Your task to perform on an android device: Go to calendar. Show me events next week Image 0: 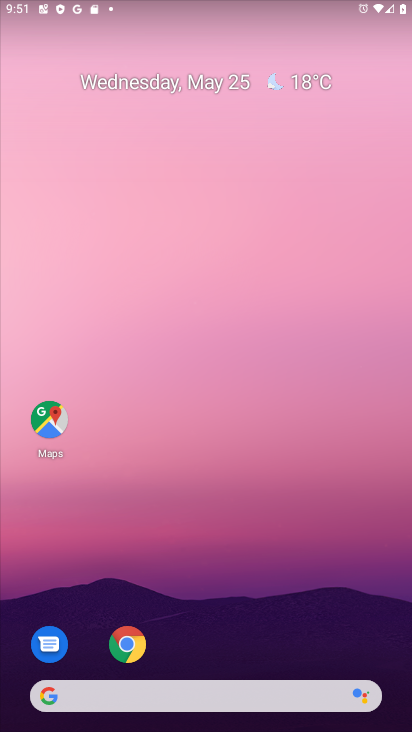
Step 0: drag from (189, 661) to (195, 2)
Your task to perform on an android device: Go to calendar. Show me events next week Image 1: 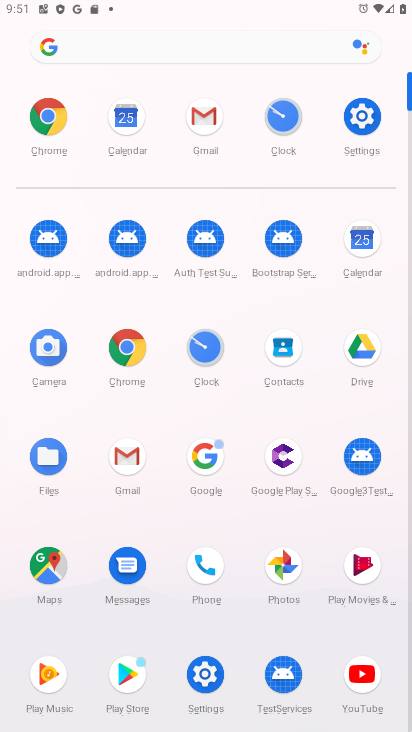
Step 1: click (360, 235)
Your task to perform on an android device: Go to calendar. Show me events next week Image 2: 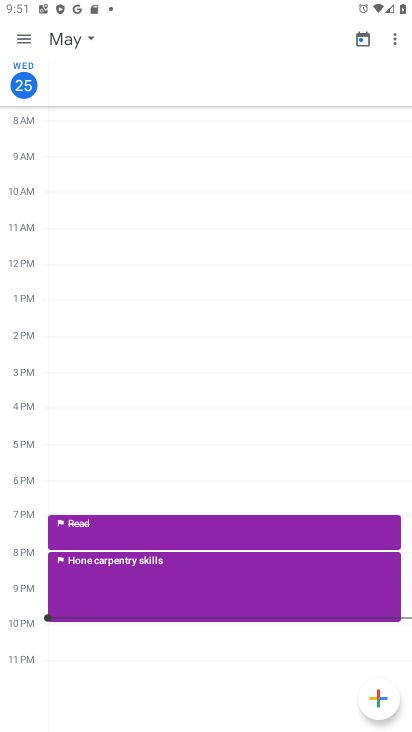
Step 2: click (19, 35)
Your task to perform on an android device: Go to calendar. Show me events next week Image 3: 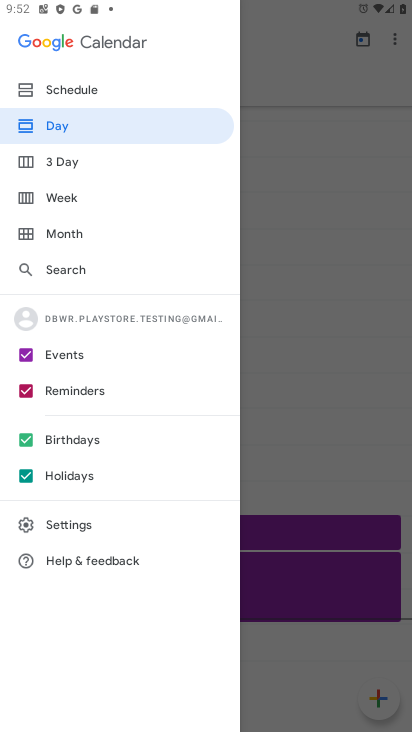
Step 3: click (25, 472)
Your task to perform on an android device: Go to calendar. Show me events next week Image 4: 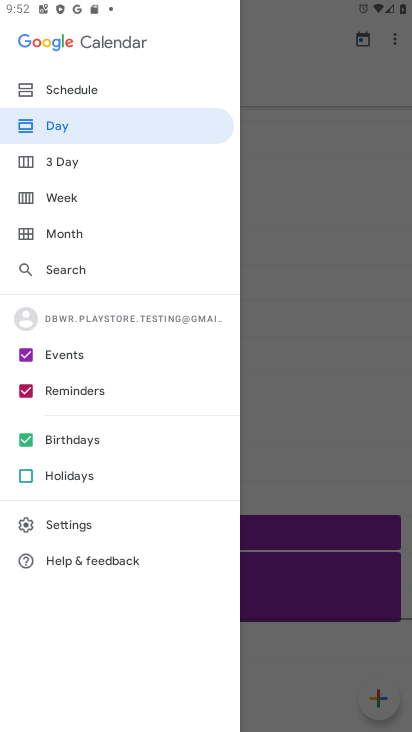
Step 4: click (25, 433)
Your task to perform on an android device: Go to calendar. Show me events next week Image 5: 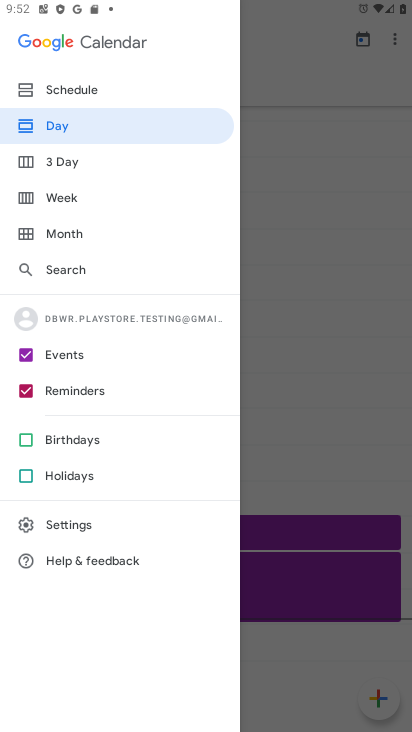
Step 5: click (25, 380)
Your task to perform on an android device: Go to calendar. Show me events next week Image 6: 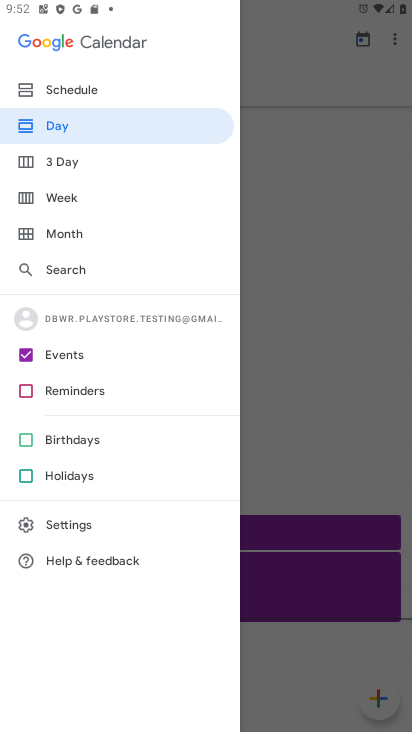
Step 6: click (81, 195)
Your task to perform on an android device: Go to calendar. Show me events next week Image 7: 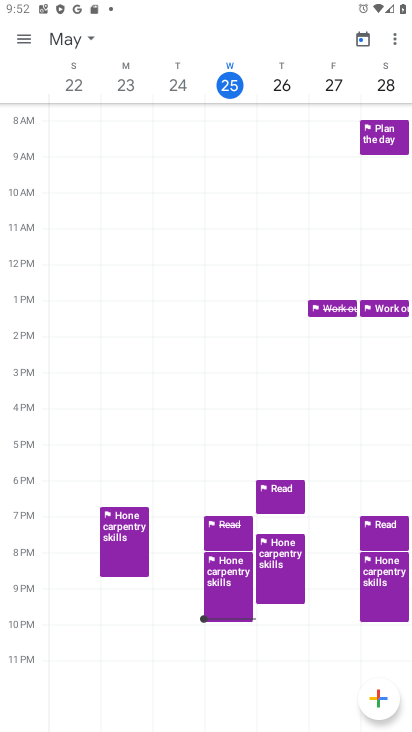
Step 7: drag from (377, 82) to (61, 77)
Your task to perform on an android device: Go to calendar. Show me events next week Image 8: 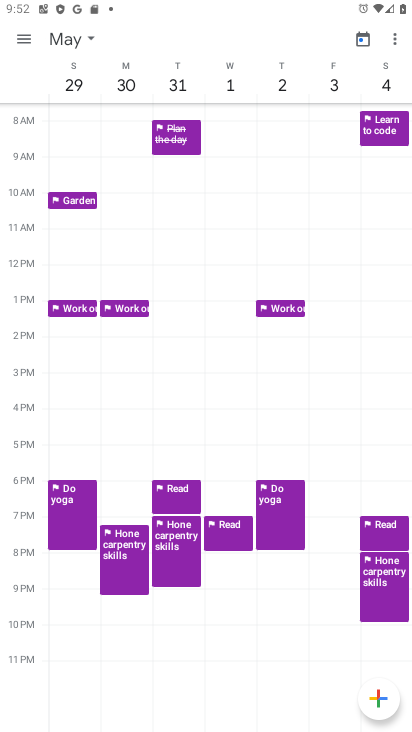
Step 8: click (72, 79)
Your task to perform on an android device: Go to calendar. Show me events next week Image 9: 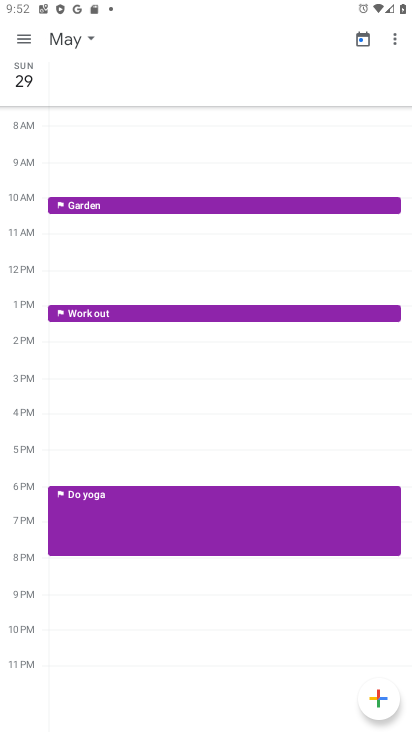
Step 9: task complete